Your task to perform on an android device: Do I have any events this weekend? Image 0: 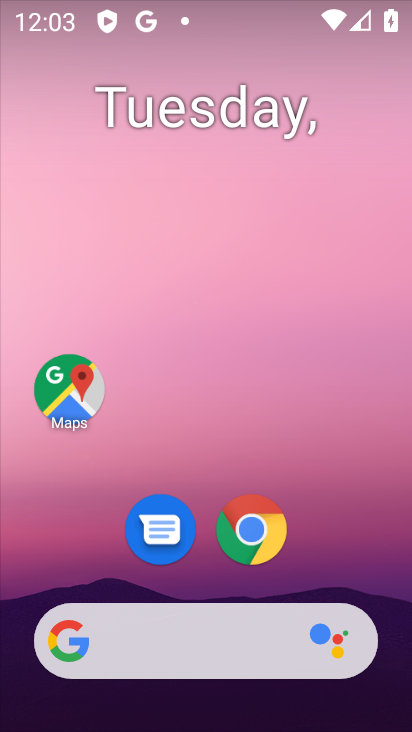
Step 0: drag from (195, 725) to (212, 202)
Your task to perform on an android device: Do I have any events this weekend? Image 1: 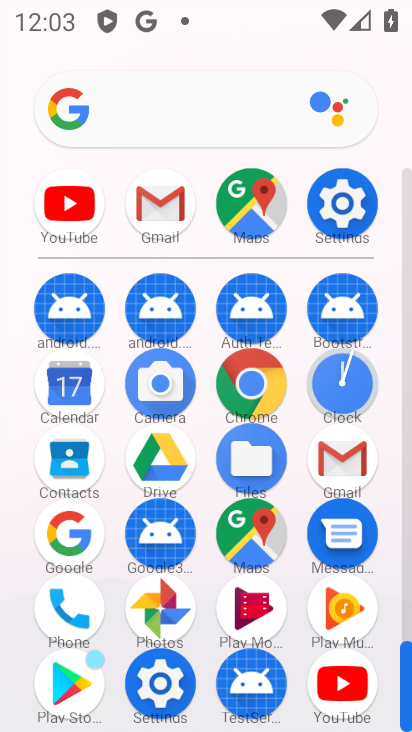
Step 1: click (64, 390)
Your task to perform on an android device: Do I have any events this weekend? Image 2: 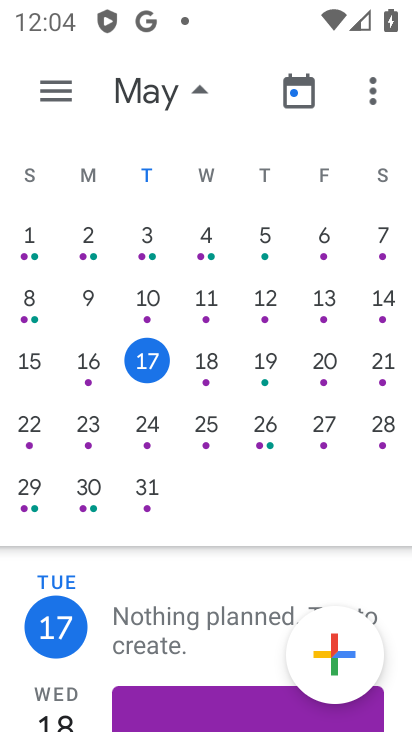
Step 2: click (379, 357)
Your task to perform on an android device: Do I have any events this weekend? Image 3: 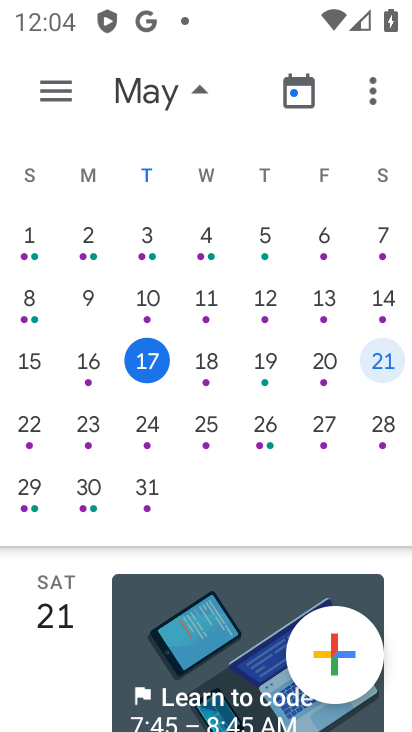
Step 3: click (199, 91)
Your task to perform on an android device: Do I have any events this weekend? Image 4: 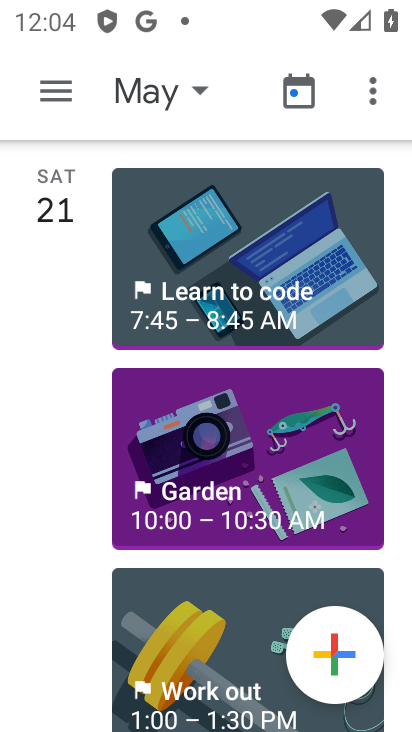
Step 4: task complete